Your task to perform on an android device: Go to internet settings Image 0: 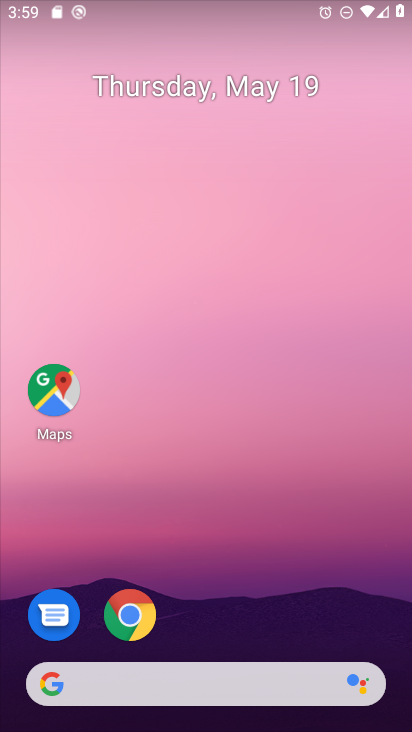
Step 0: drag from (308, 591) to (194, 4)
Your task to perform on an android device: Go to internet settings Image 1: 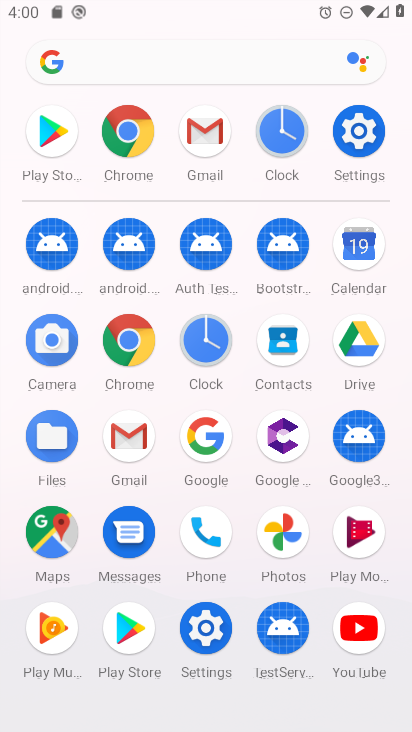
Step 1: click (367, 144)
Your task to perform on an android device: Go to internet settings Image 2: 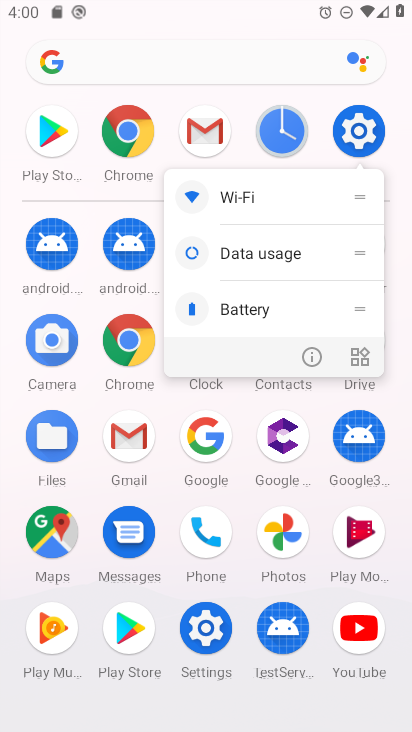
Step 2: click (355, 132)
Your task to perform on an android device: Go to internet settings Image 3: 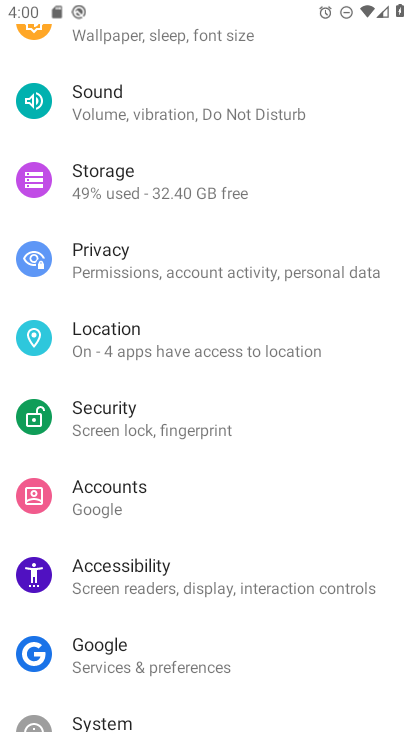
Step 3: drag from (259, 81) to (305, 716)
Your task to perform on an android device: Go to internet settings Image 4: 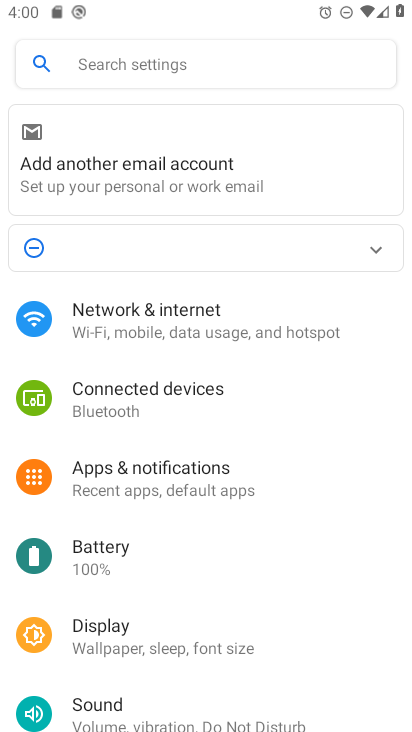
Step 4: click (252, 333)
Your task to perform on an android device: Go to internet settings Image 5: 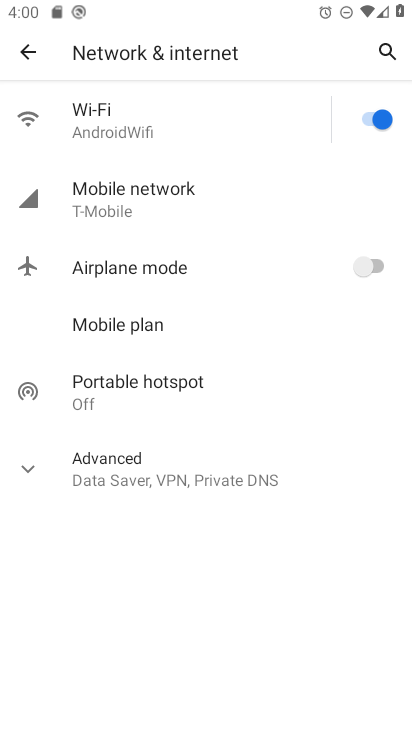
Step 5: task complete